Your task to perform on an android device: Search for sushi restaurants on Maps Image 0: 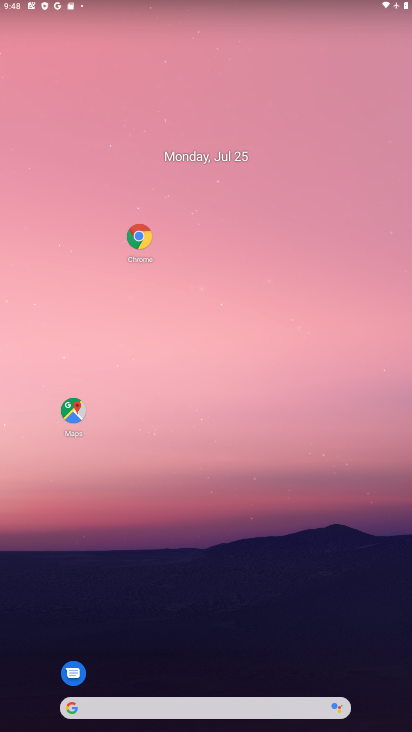
Step 0: click (53, 402)
Your task to perform on an android device: Search for sushi restaurants on Maps Image 1: 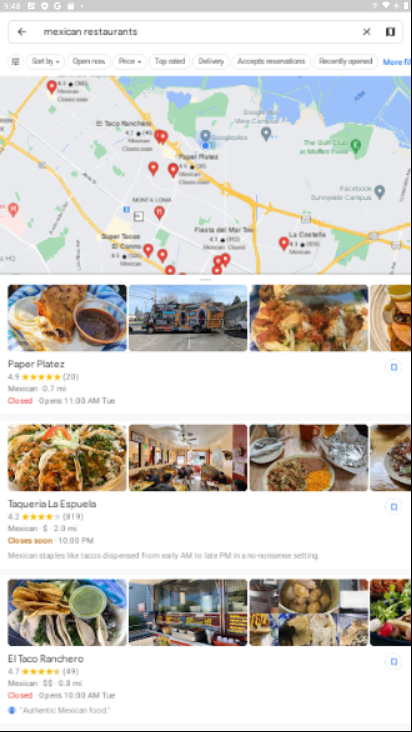
Step 1: task complete